Your task to perform on an android device: open app "eBay: The shopping marketplace" (install if not already installed), go to login, and select forgot password Image 0: 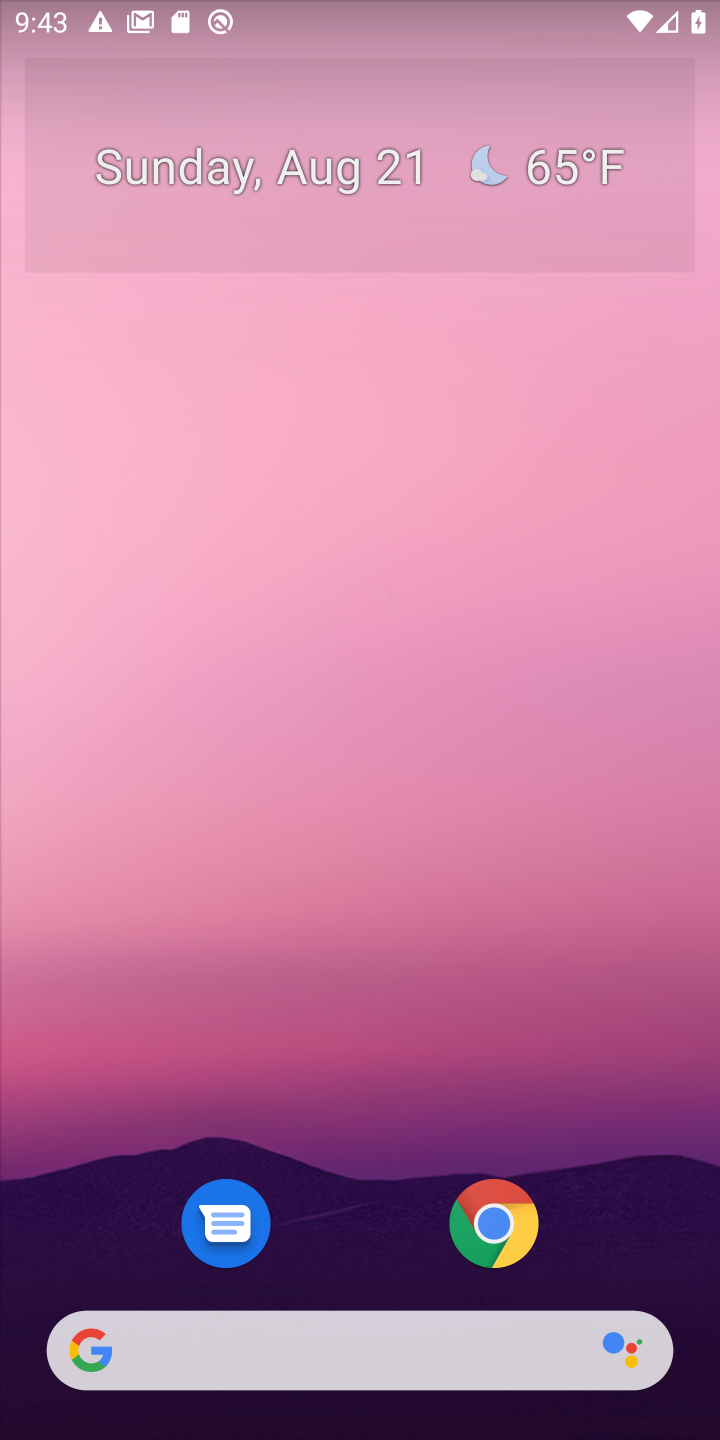
Step 0: press home button
Your task to perform on an android device: open app "eBay: The shopping marketplace" (install if not already installed), go to login, and select forgot password Image 1: 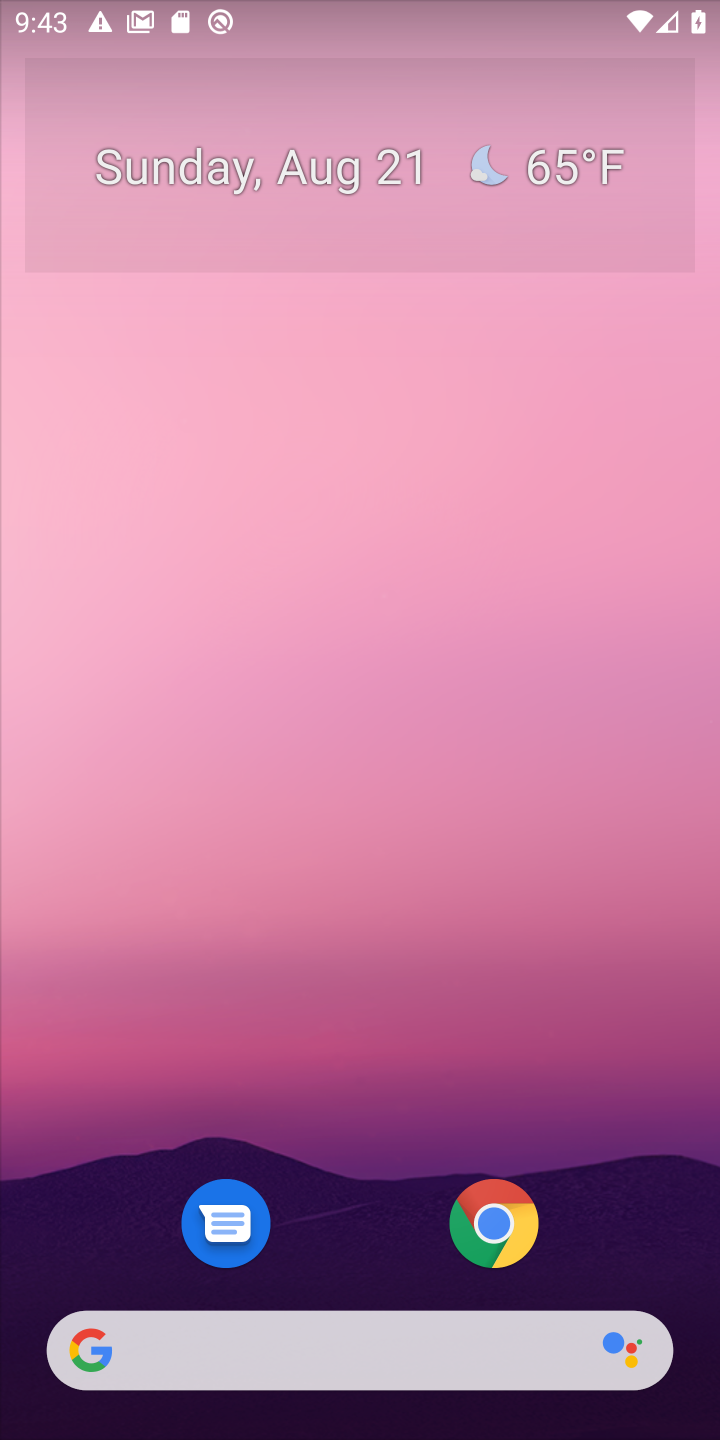
Step 1: drag from (618, 1094) to (687, 288)
Your task to perform on an android device: open app "eBay: The shopping marketplace" (install if not already installed), go to login, and select forgot password Image 2: 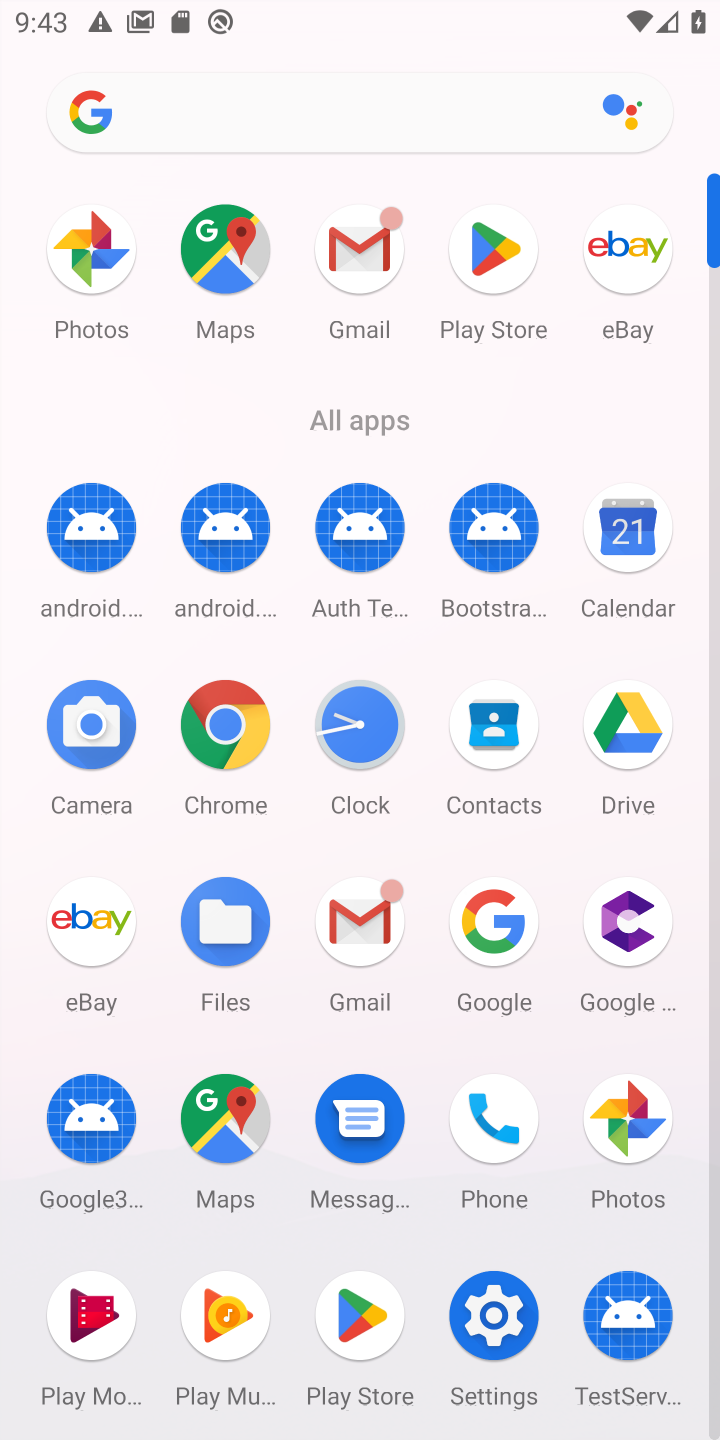
Step 2: click (499, 258)
Your task to perform on an android device: open app "eBay: The shopping marketplace" (install if not already installed), go to login, and select forgot password Image 3: 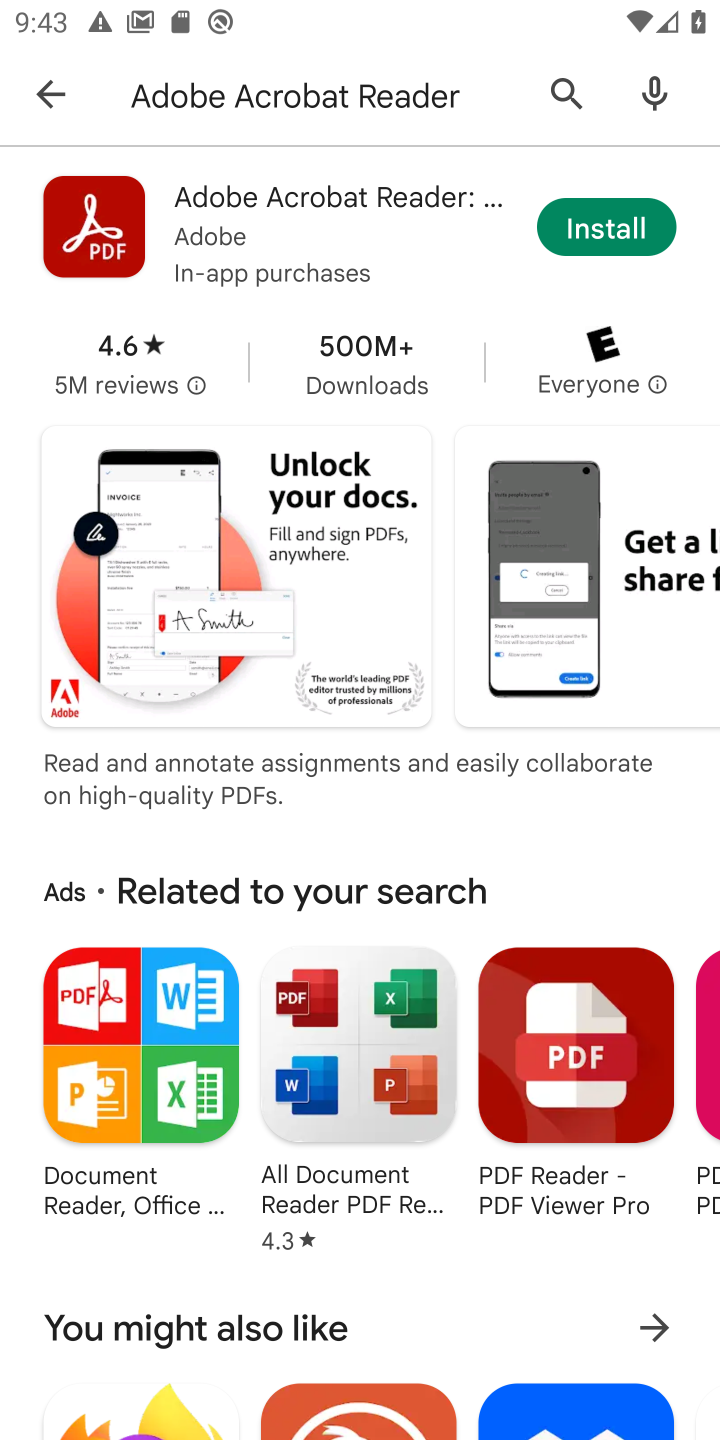
Step 3: press back button
Your task to perform on an android device: open app "eBay: The shopping marketplace" (install if not already installed), go to login, and select forgot password Image 4: 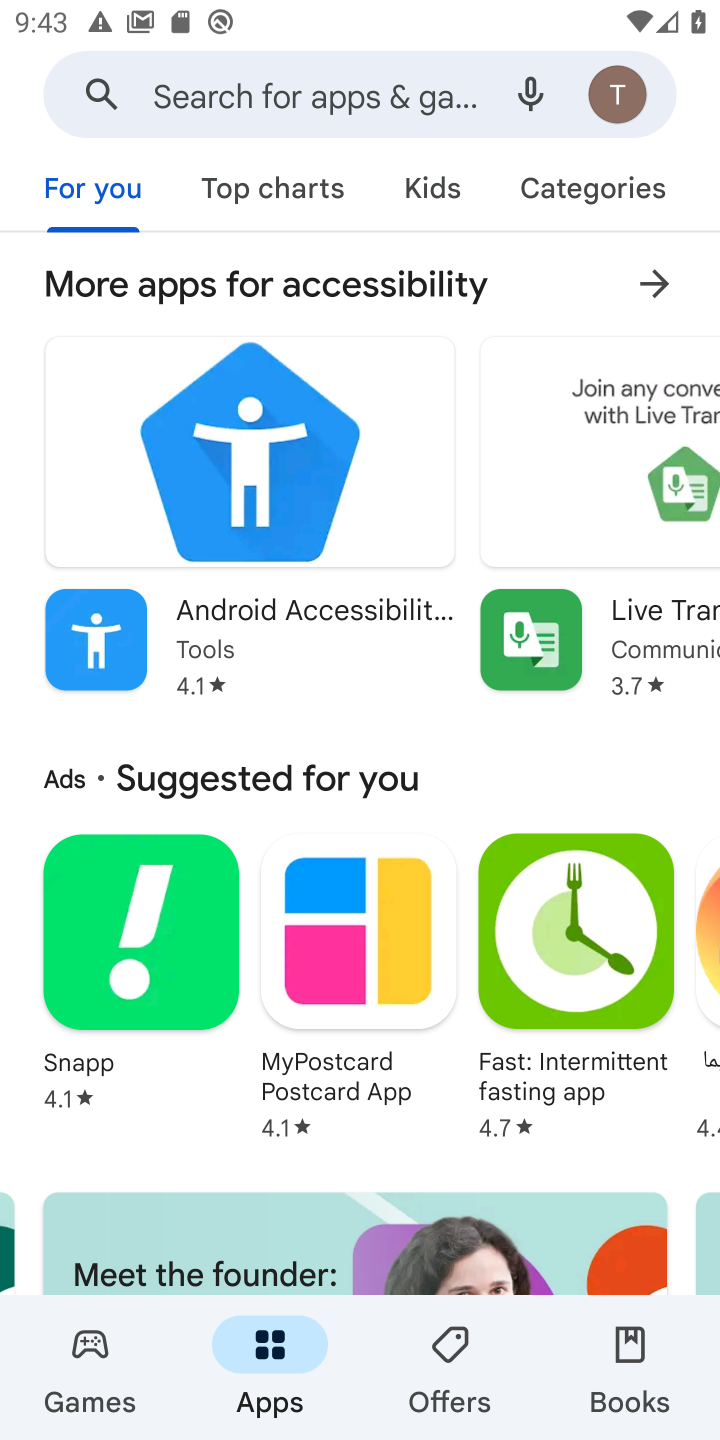
Step 4: click (368, 73)
Your task to perform on an android device: open app "eBay: The shopping marketplace" (install if not already installed), go to login, and select forgot password Image 5: 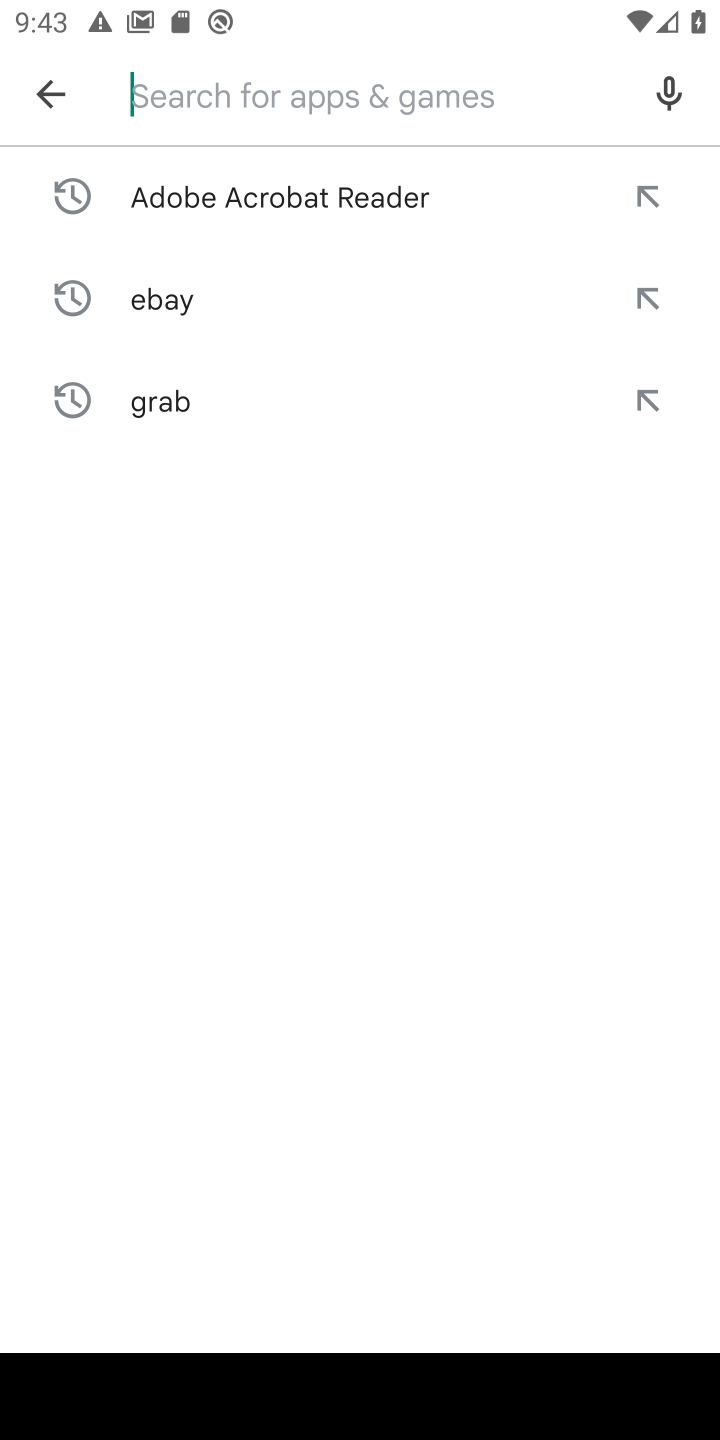
Step 5: press enter
Your task to perform on an android device: open app "eBay: The shopping marketplace" (install if not already installed), go to login, and select forgot password Image 6: 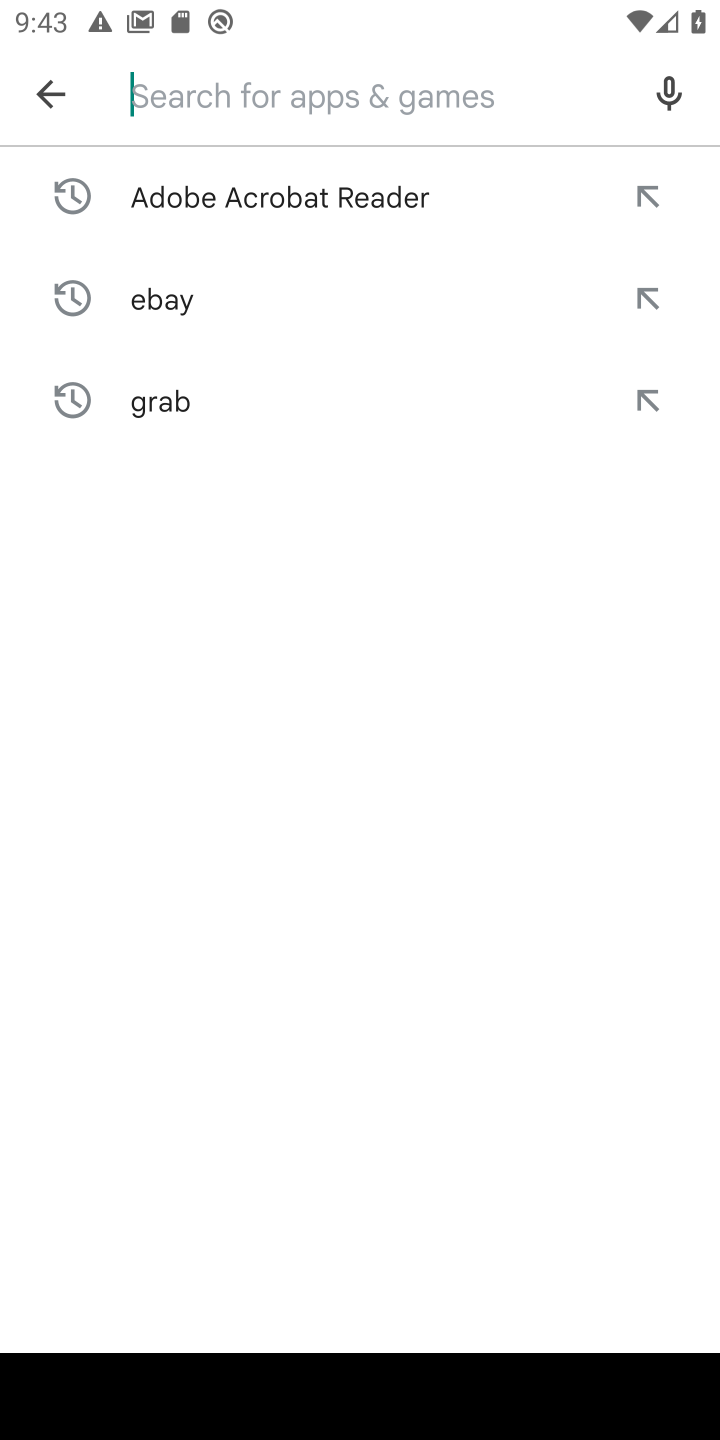
Step 6: type "ebay"
Your task to perform on an android device: open app "eBay: The shopping marketplace" (install if not already installed), go to login, and select forgot password Image 7: 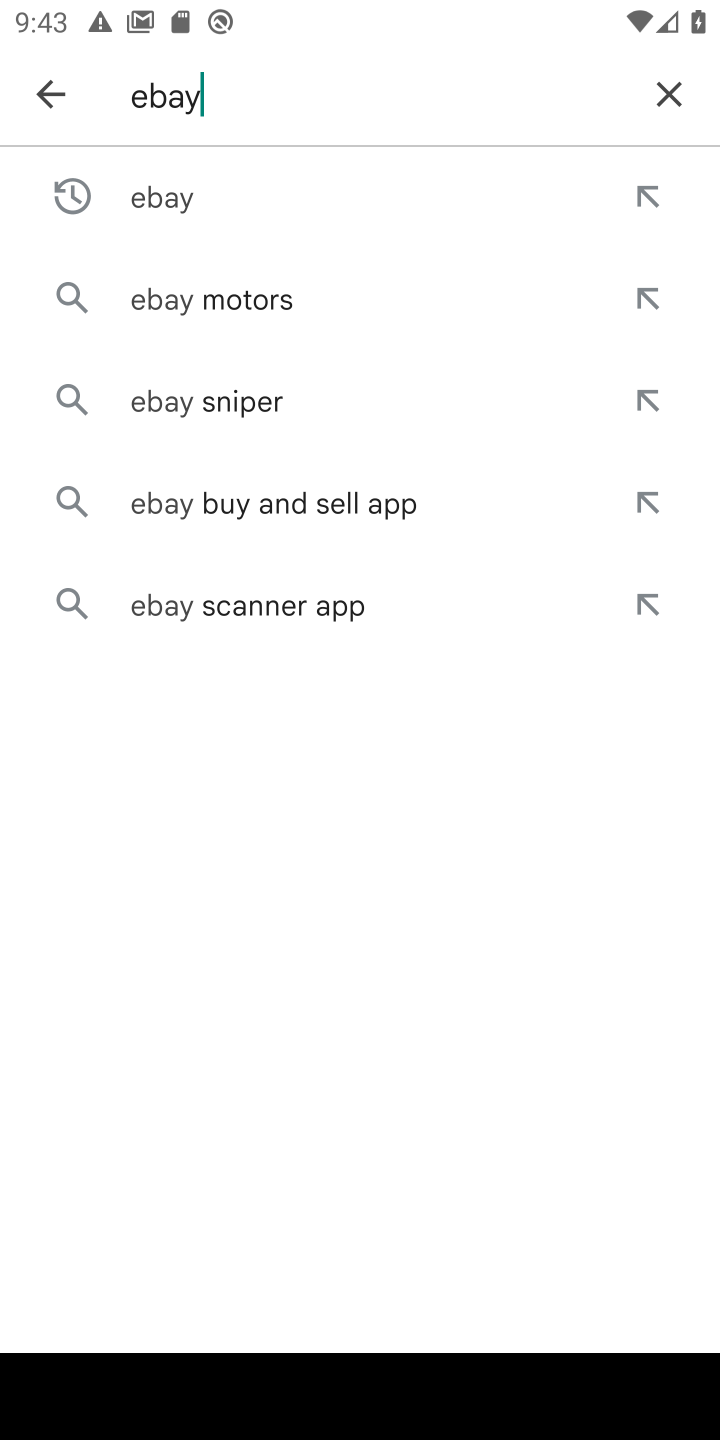
Step 7: click (198, 212)
Your task to perform on an android device: open app "eBay: The shopping marketplace" (install if not already installed), go to login, and select forgot password Image 8: 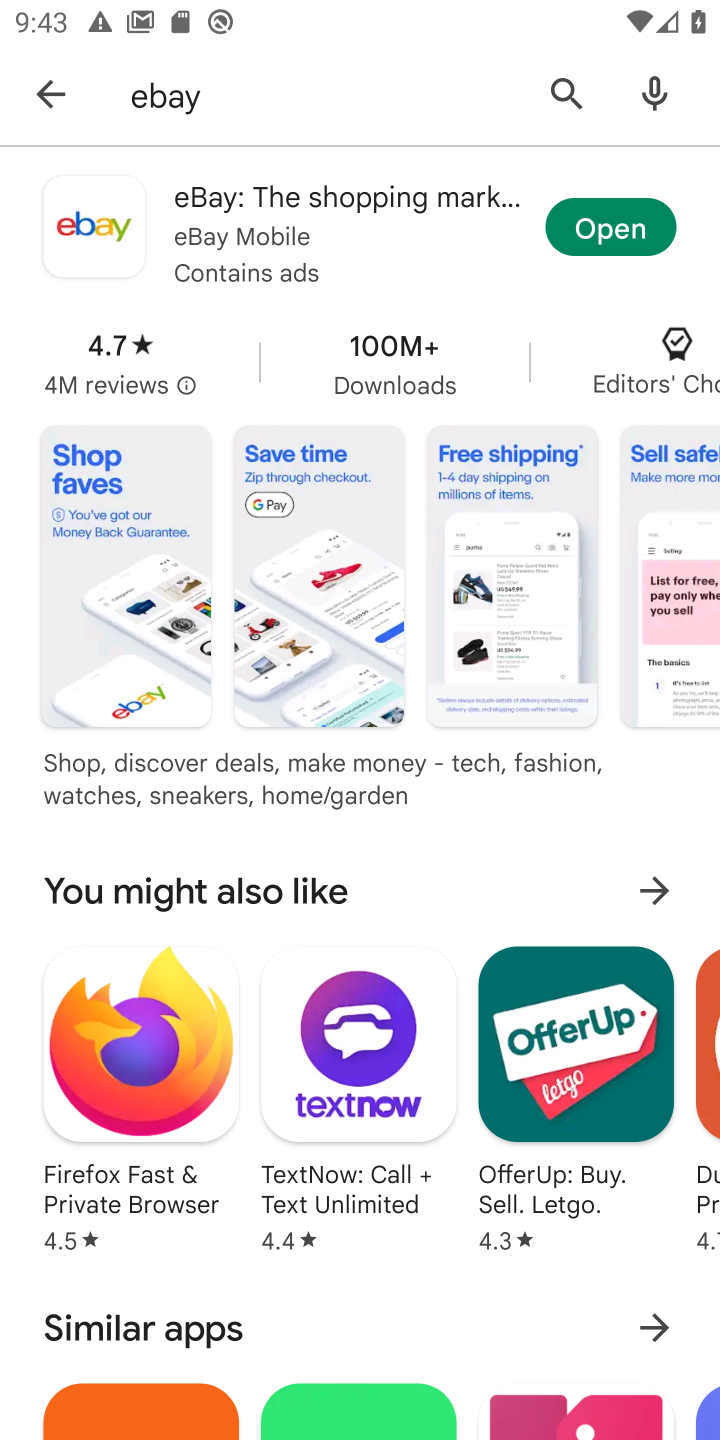
Step 8: click (617, 228)
Your task to perform on an android device: open app "eBay: The shopping marketplace" (install if not already installed), go to login, and select forgot password Image 9: 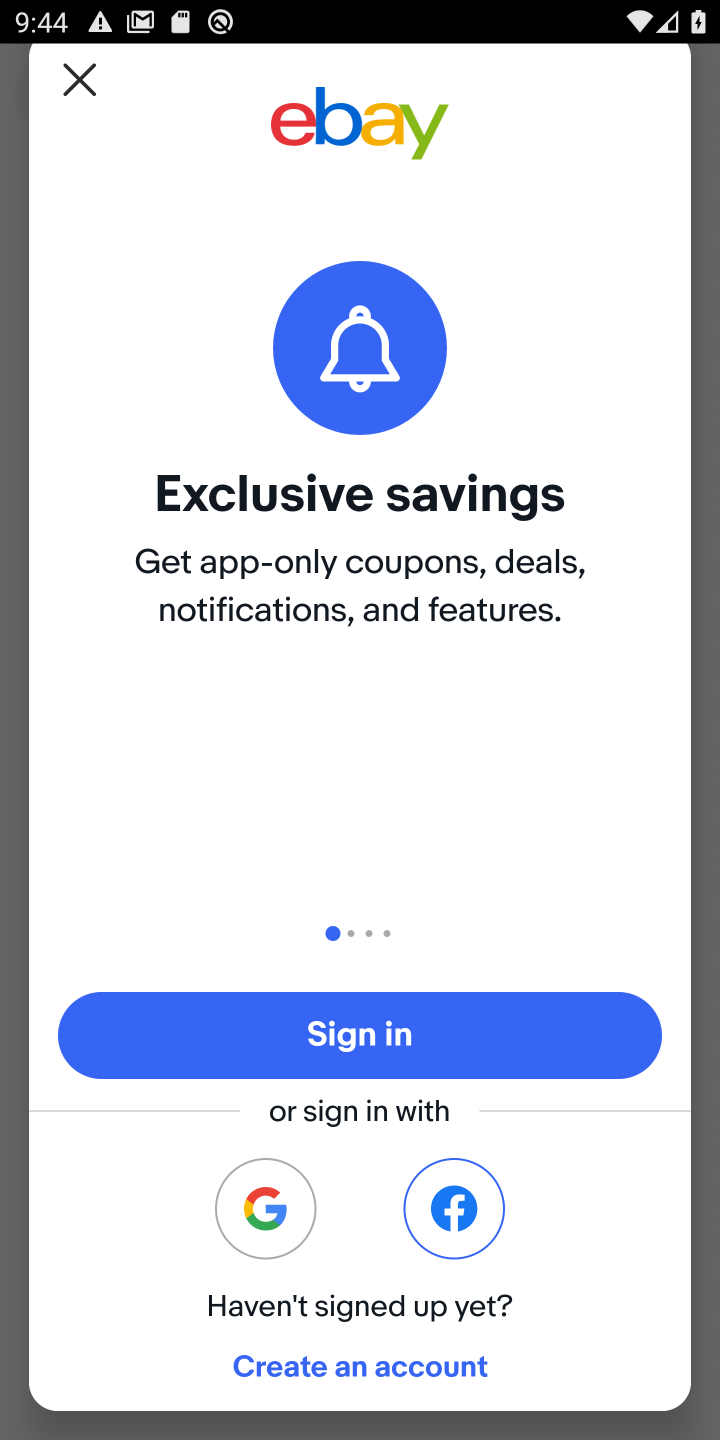
Step 9: click (459, 1022)
Your task to perform on an android device: open app "eBay: The shopping marketplace" (install if not already installed), go to login, and select forgot password Image 10: 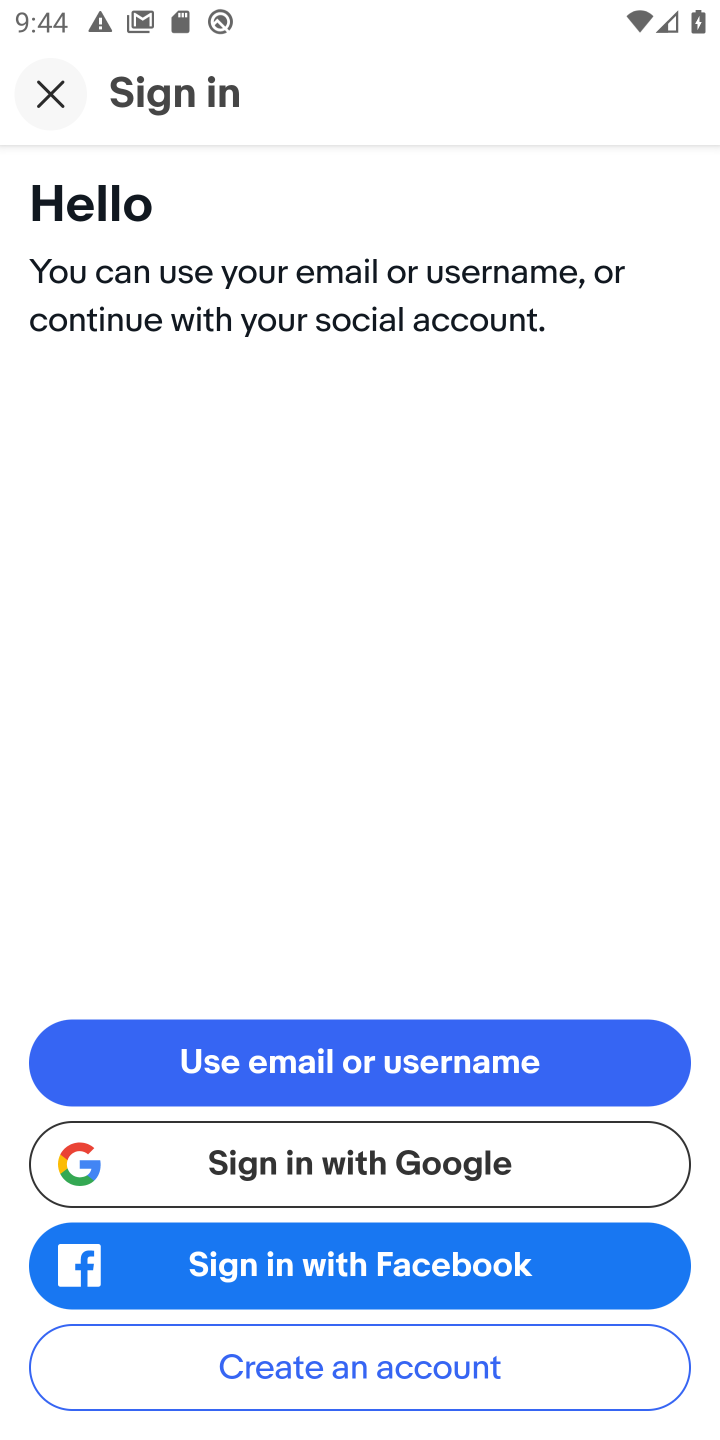
Step 10: click (412, 1060)
Your task to perform on an android device: open app "eBay: The shopping marketplace" (install if not already installed), go to login, and select forgot password Image 11: 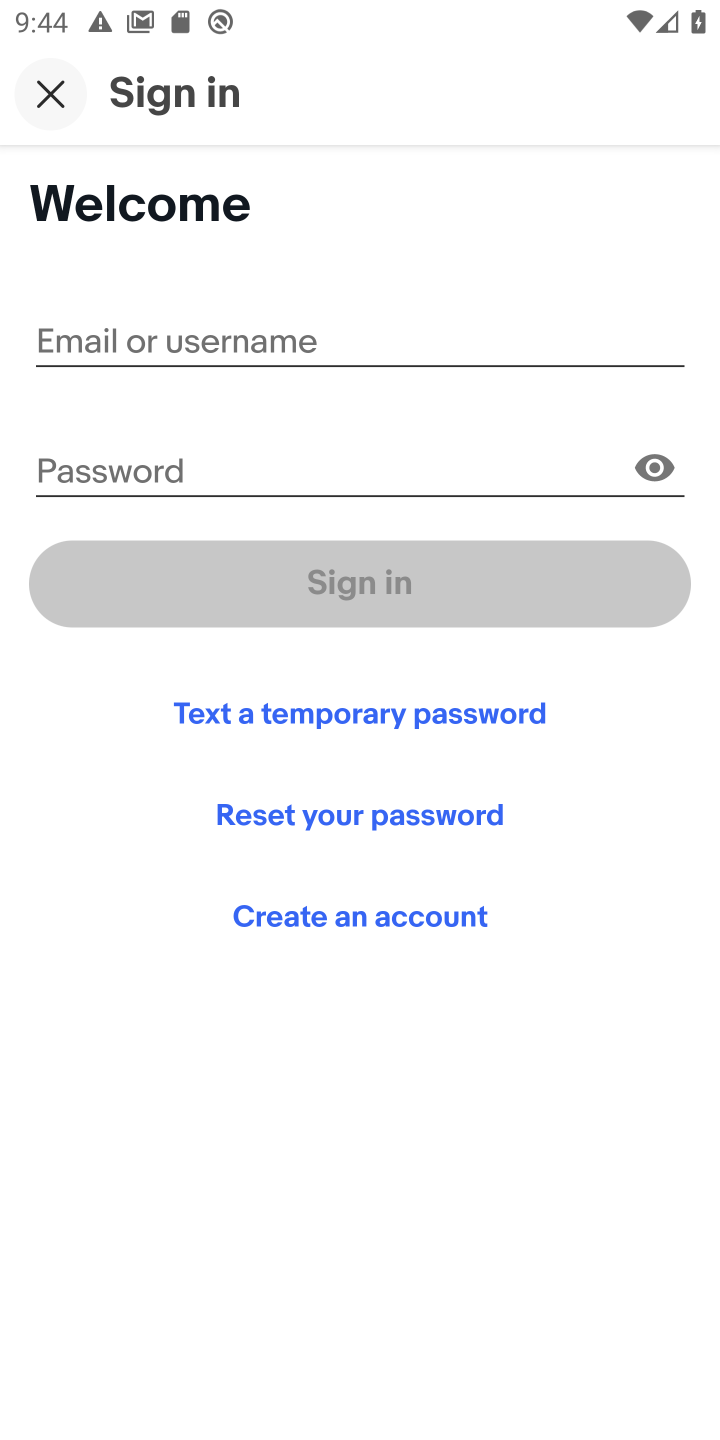
Step 11: click (454, 804)
Your task to perform on an android device: open app "eBay: The shopping marketplace" (install if not already installed), go to login, and select forgot password Image 12: 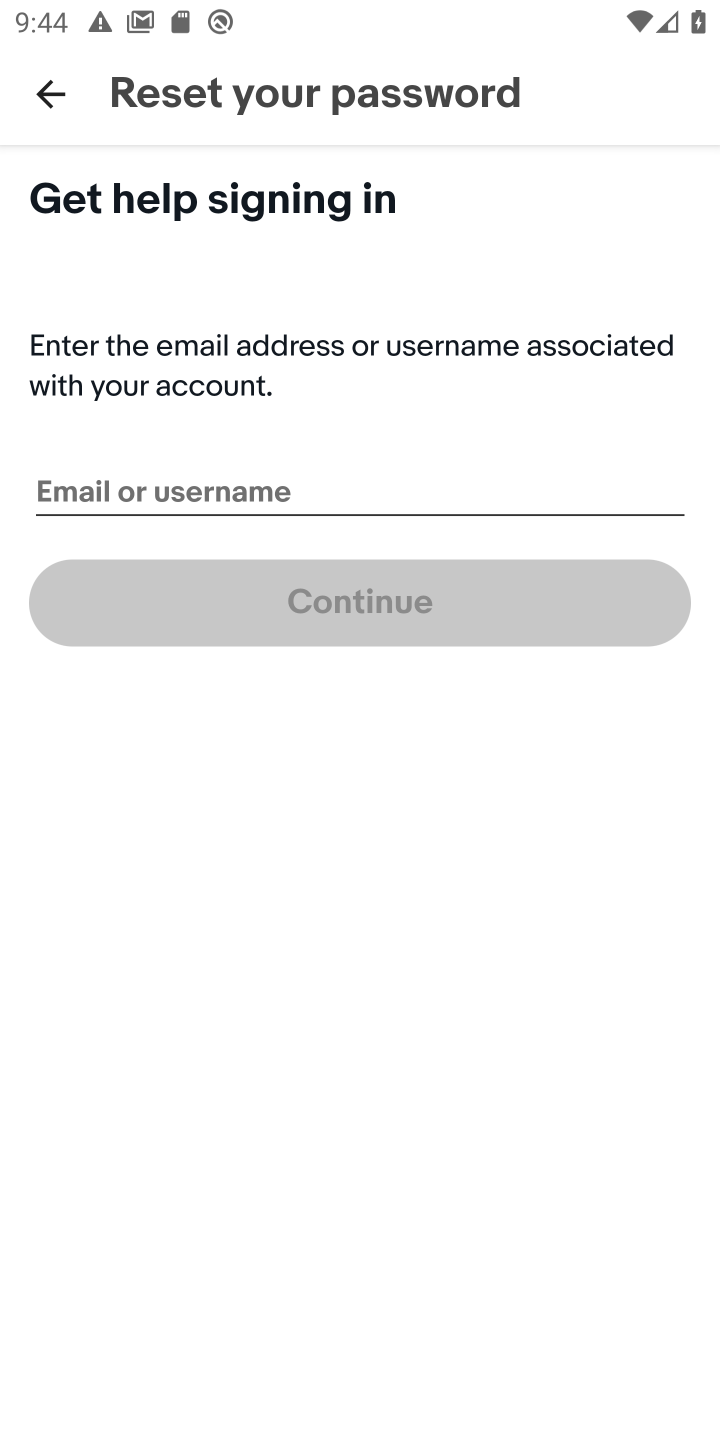
Step 12: task complete